Your task to perform on an android device: turn off translation in the chrome app Image 0: 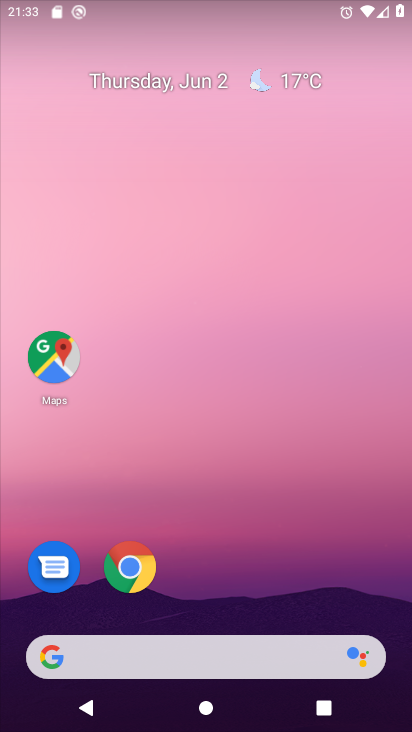
Step 0: click (131, 566)
Your task to perform on an android device: turn off translation in the chrome app Image 1: 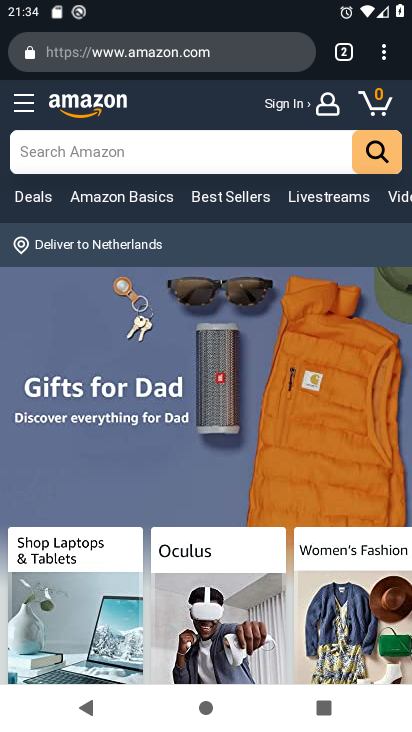
Step 1: click (384, 50)
Your task to perform on an android device: turn off translation in the chrome app Image 2: 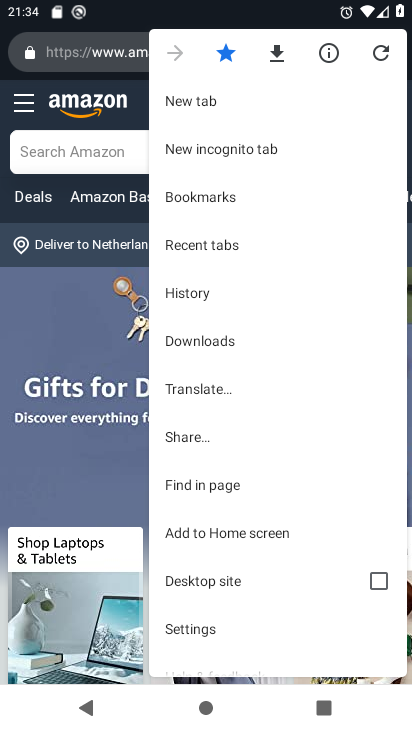
Step 2: click (209, 628)
Your task to perform on an android device: turn off translation in the chrome app Image 3: 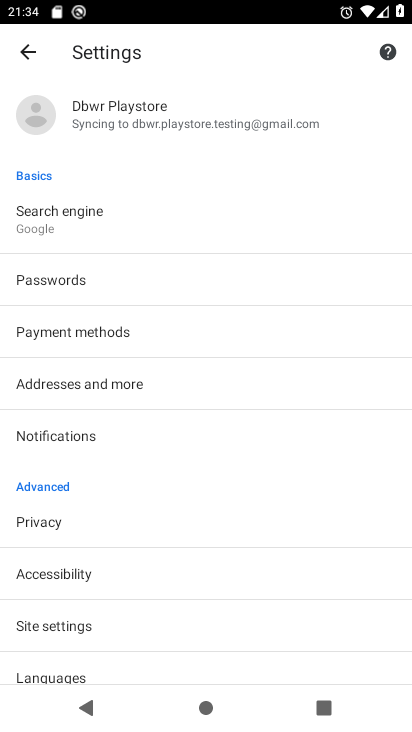
Step 3: click (52, 667)
Your task to perform on an android device: turn off translation in the chrome app Image 4: 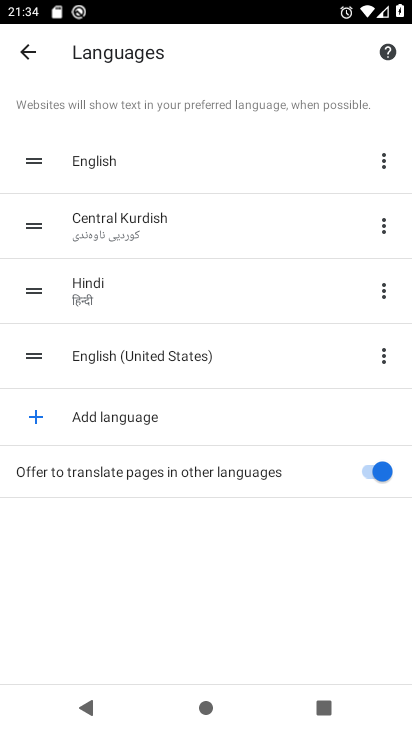
Step 4: click (344, 477)
Your task to perform on an android device: turn off translation in the chrome app Image 5: 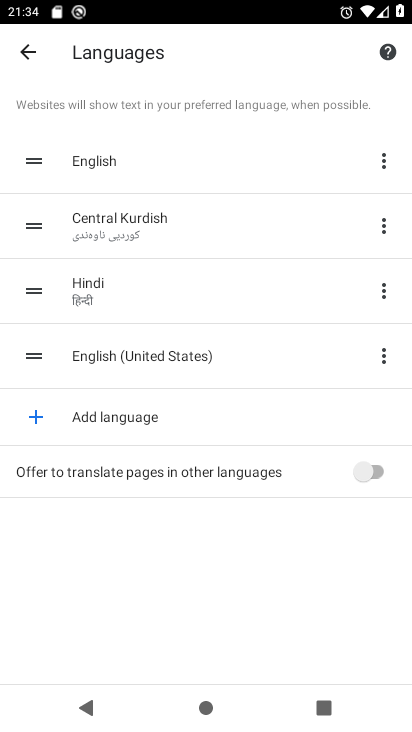
Step 5: task complete